Your task to perform on an android device: add a contact in the contacts app Image 0: 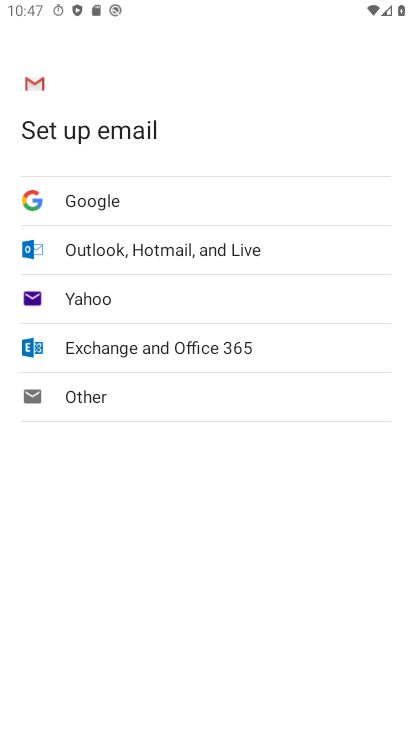
Step 0: press home button
Your task to perform on an android device: add a contact in the contacts app Image 1: 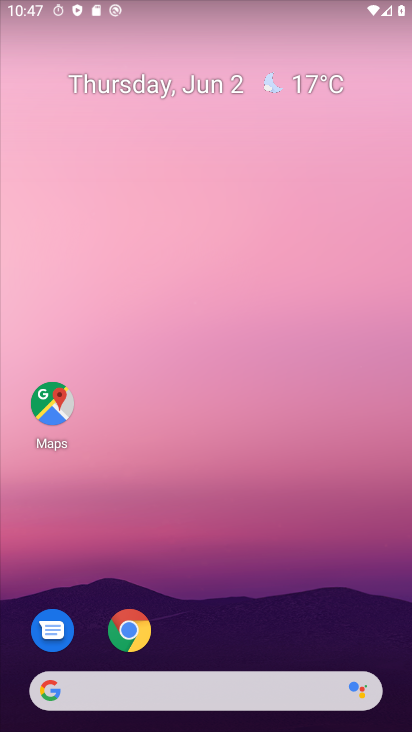
Step 1: drag from (206, 630) to (318, 0)
Your task to perform on an android device: add a contact in the contacts app Image 2: 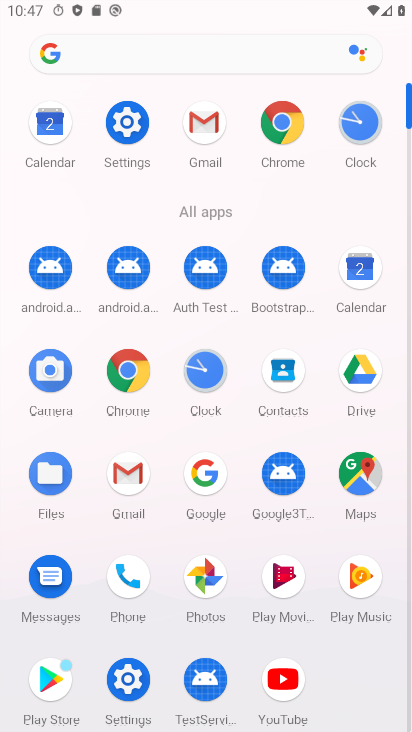
Step 2: click (290, 382)
Your task to perform on an android device: add a contact in the contacts app Image 3: 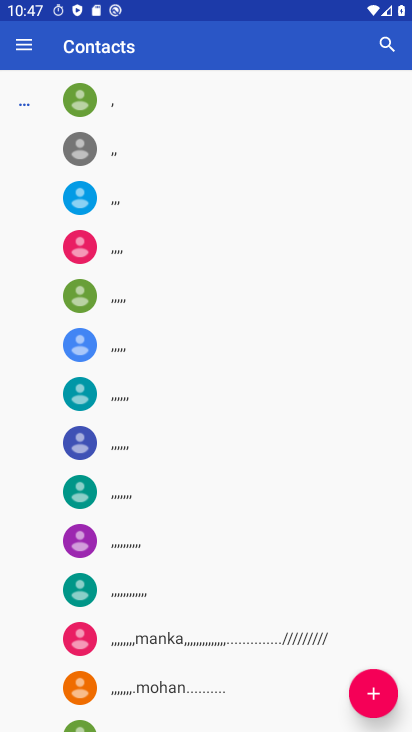
Step 3: click (386, 708)
Your task to perform on an android device: add a contact in the contacts app Image 4: 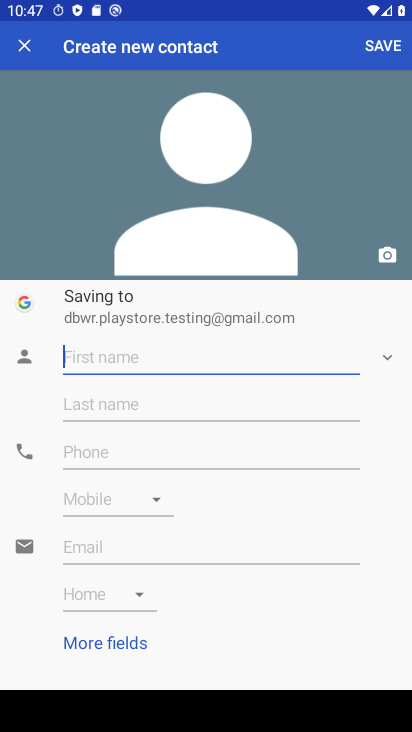
Step 4: type "flemiing"
Your task to perform on an android device: add a contact in the contacts app Image 5: 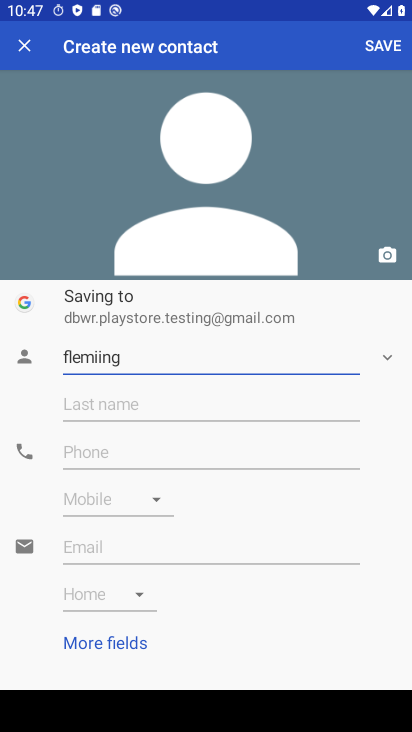
Step 5: click (385, 42)
Your task to perform on an android device: add a contact in the contacts app Image 6: 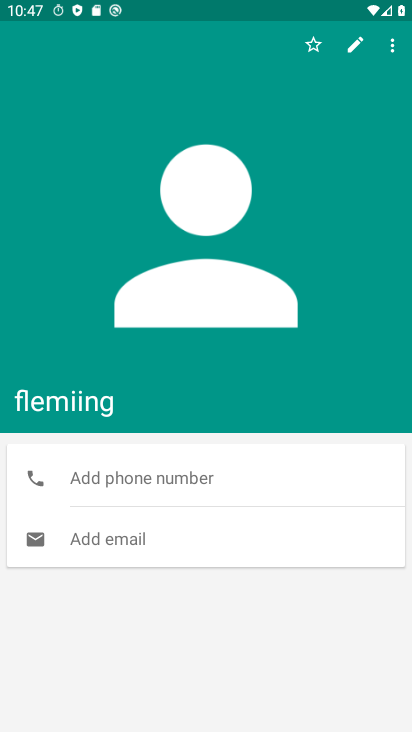
Step 6: task complete